Your task to perform on an android device: Search for "apple airpods" on target, select the first entry, and add it to the cart. Image 0: 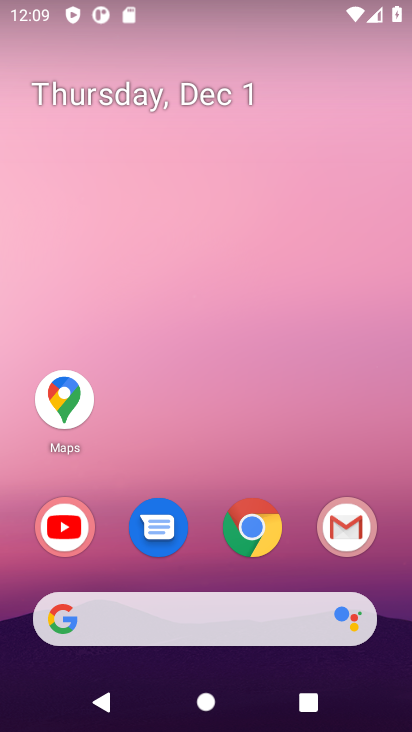
Step 0: click (260, 535)
Your task to perform on an android device: Search for "apple airpods" on target, select the first entry, and add it to the cart. Image 1: 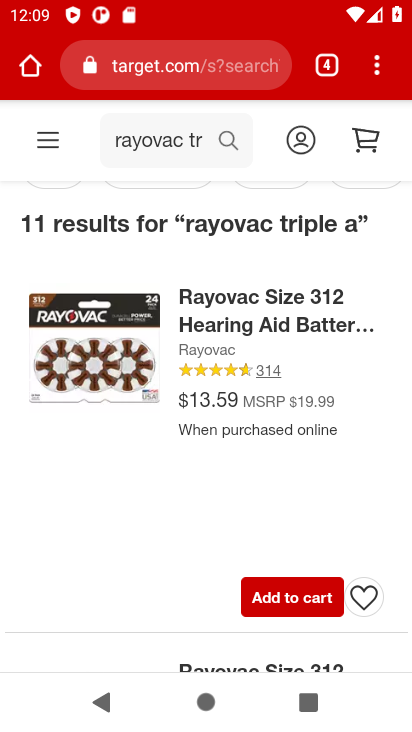
Step 1: click (231, 140)
Your task to perform on an android device: Search for "apple airpods" on target, select the first entry, and add it to the cart. Image 2: 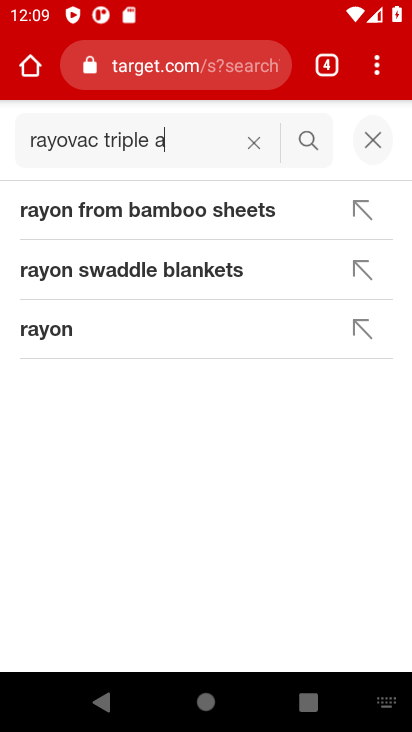
Step 2: click (253, 143)
Your task to perform on an android device: Search for "apple airpods" on target, select the first entry, and add it to the cart. Image 3: 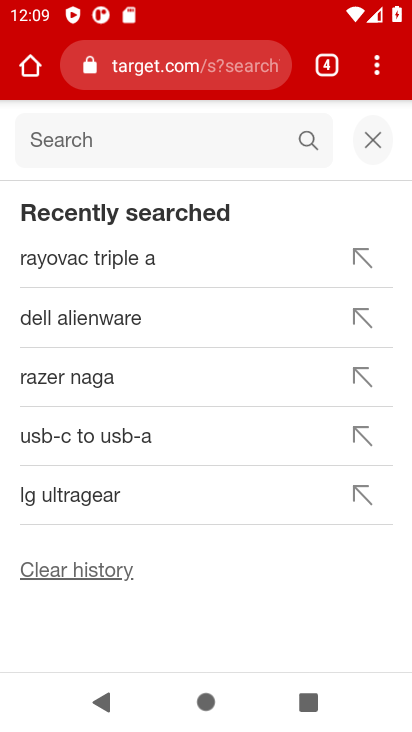
Step 3: type "apple airpods"
Your task to perform on an android device: Search for "apple airpods" on target, select the first entry, and add it to the cart. Image 4: 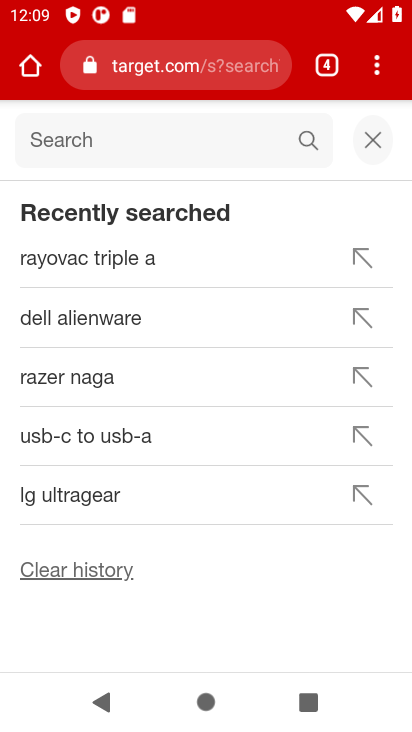
Step 4: click (81, 141)
Your task to perform on an android device: Search for "apple airpods" on target, select the first entry, and add it to the cart. Image 5: 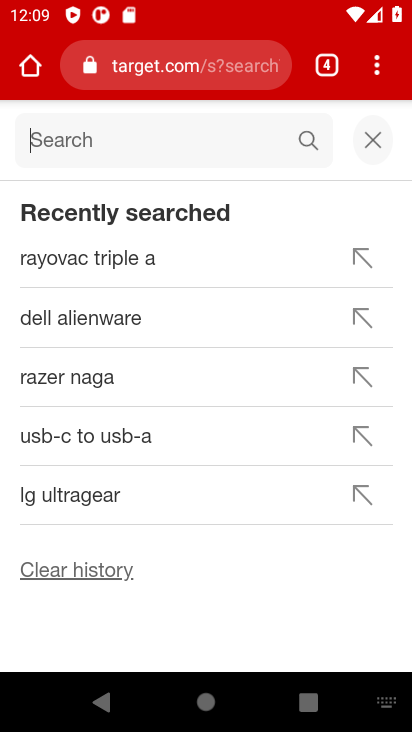
Step 5: type "apple airpods"
Your task to perform on an android device: Search for "apple airpods" on target, select the first entry, and add it to the cart. Image 6: 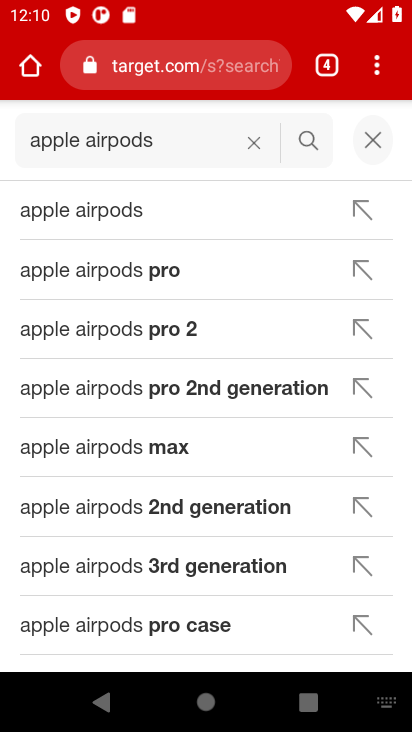
Step 6: click (85, 215)
Your task to perform on an android device: Search for "apple airpods" on target, select the first entry, and add it to the cart. Image 7: 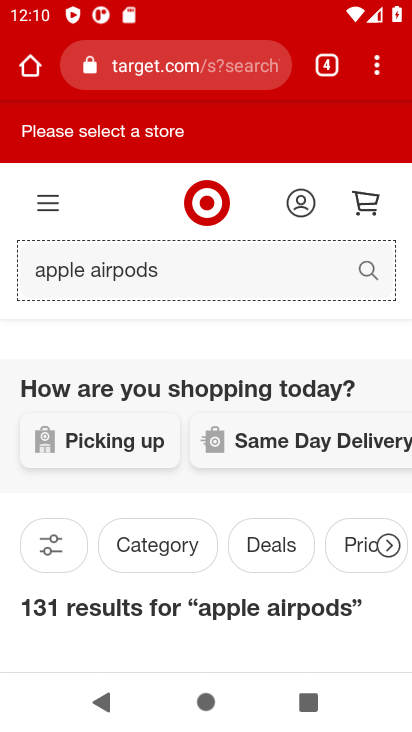
Step 7: drag from (165, 508) to (188, 83)
Your task to perform on an android device: Search for "apple airpods" on target, select the first entry, and add it to the cart. Image 8: 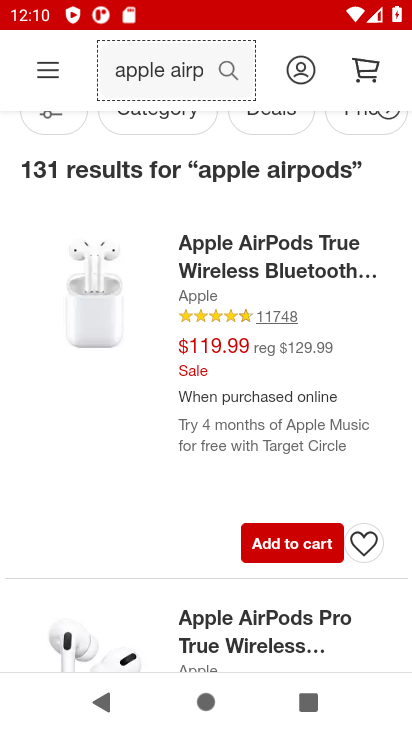
Step 8: click (298, 542)
Your task to perform on an android device: Search for "apple airpods" on target, select the first entry, and add it to the cart. Image 9: 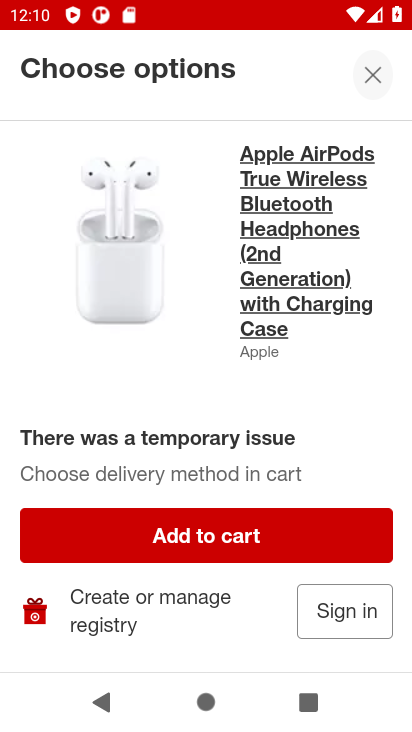
Step 9: click (221, 539)
Your task to perform on an android device: Search for "apple airpods" on target, select the first entry, and add it to the cart. Image 10: 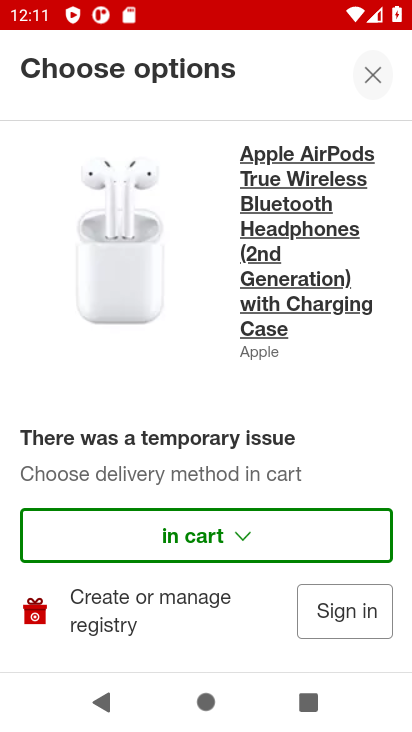
Step 10: task complete